Your task to perform on an android device: Go to Amazon Image 0: 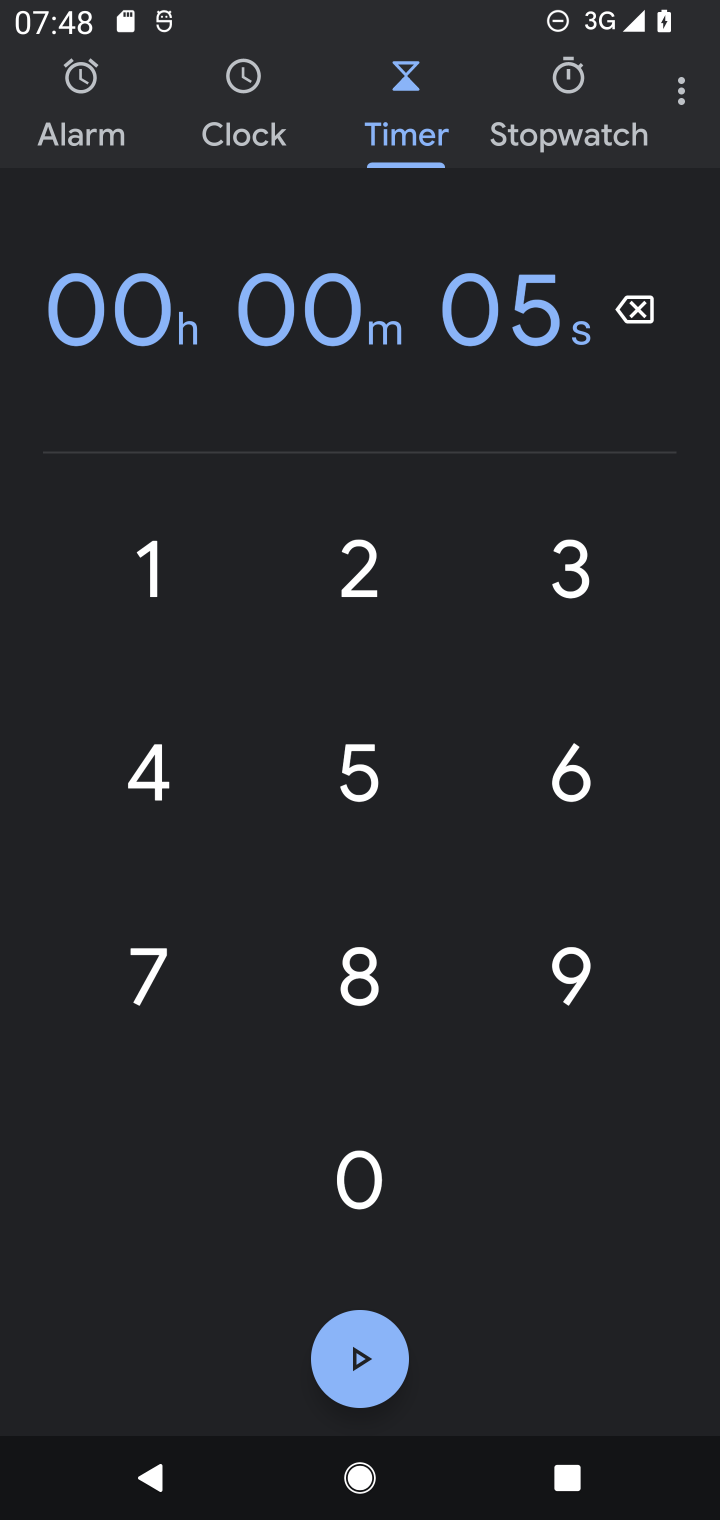
Step 0: press home button
Your task to perform on an android device: Go to Amazon Image 1: 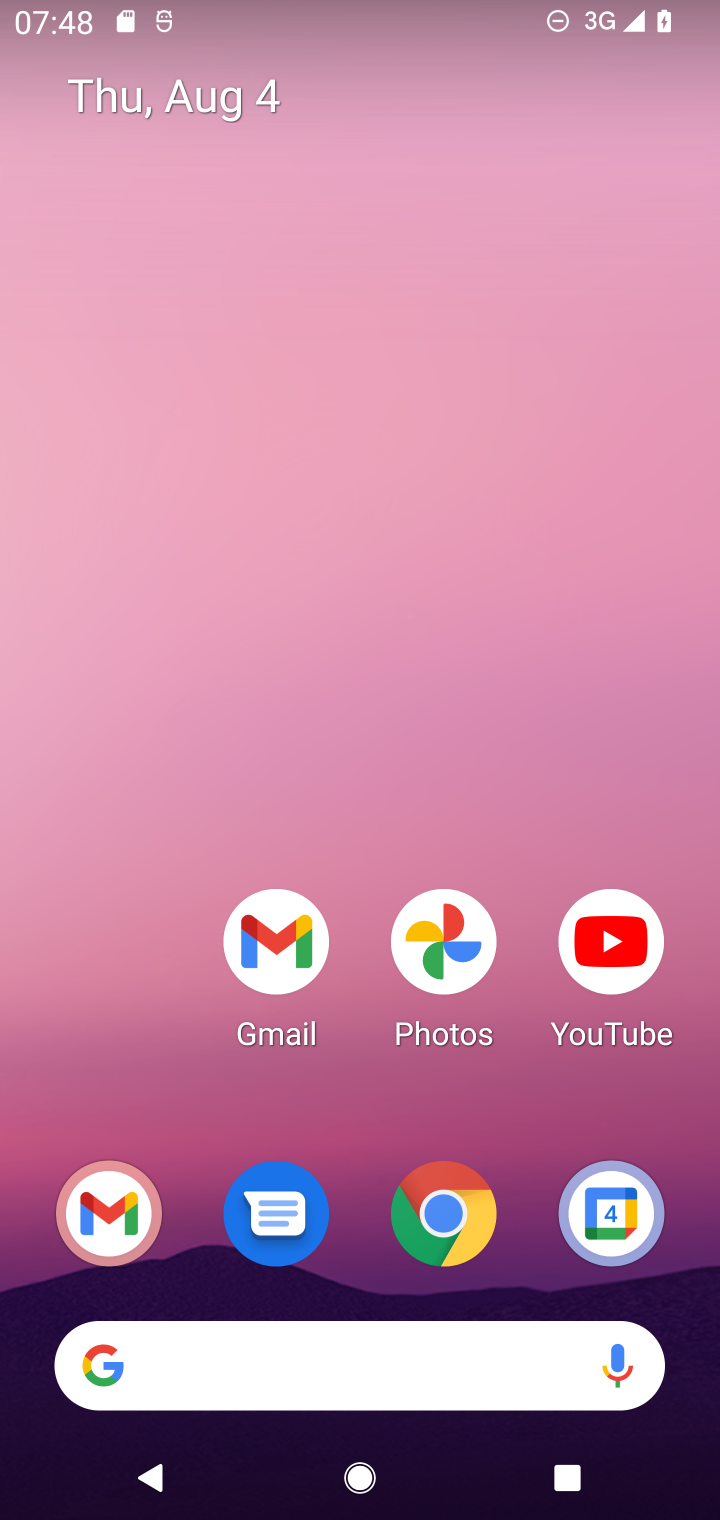
Step 1: drag from (146, 1139) to (186, 502)
Your task to perform on an android device: Go to Amazon Image 2: 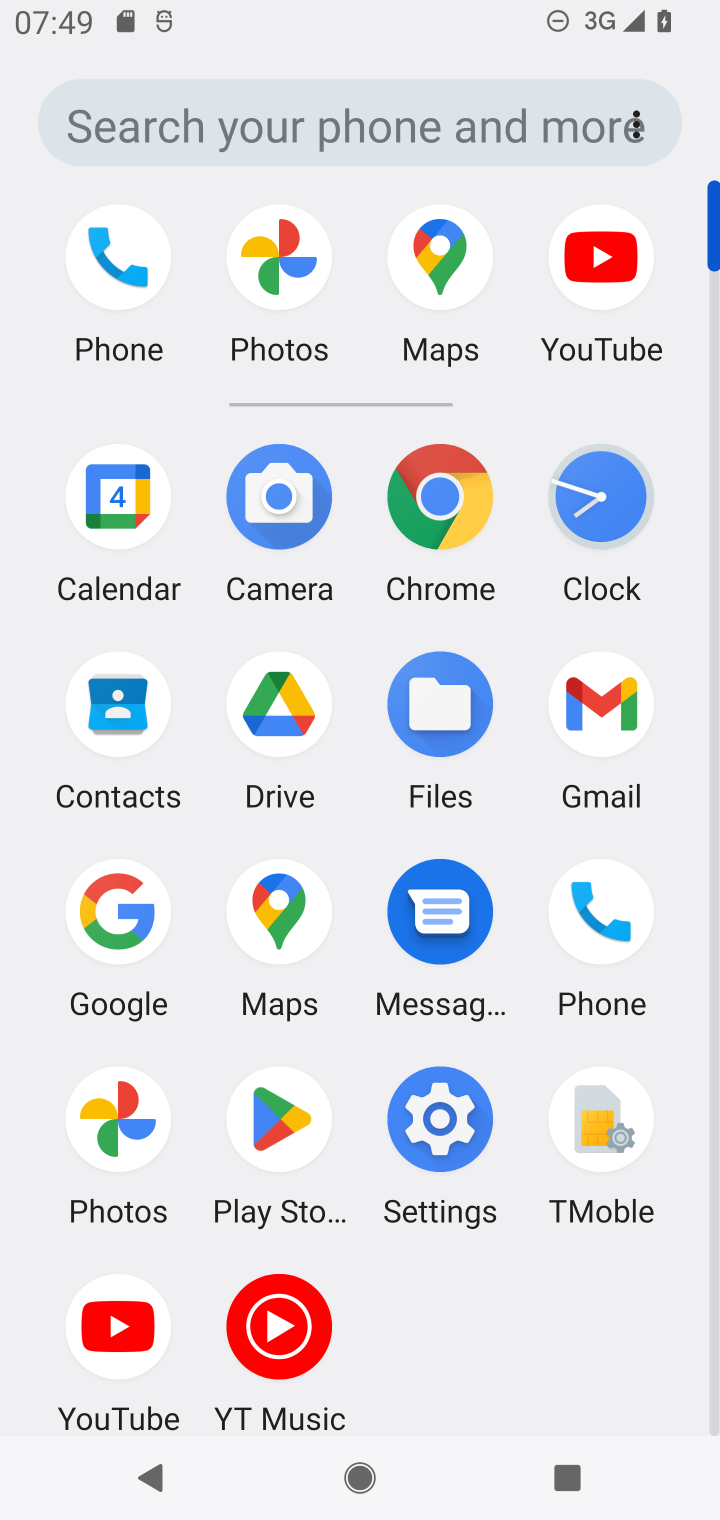
Step 2: click (451, 494)
Your task to perform on an android device: Go to Amazon Image 3: 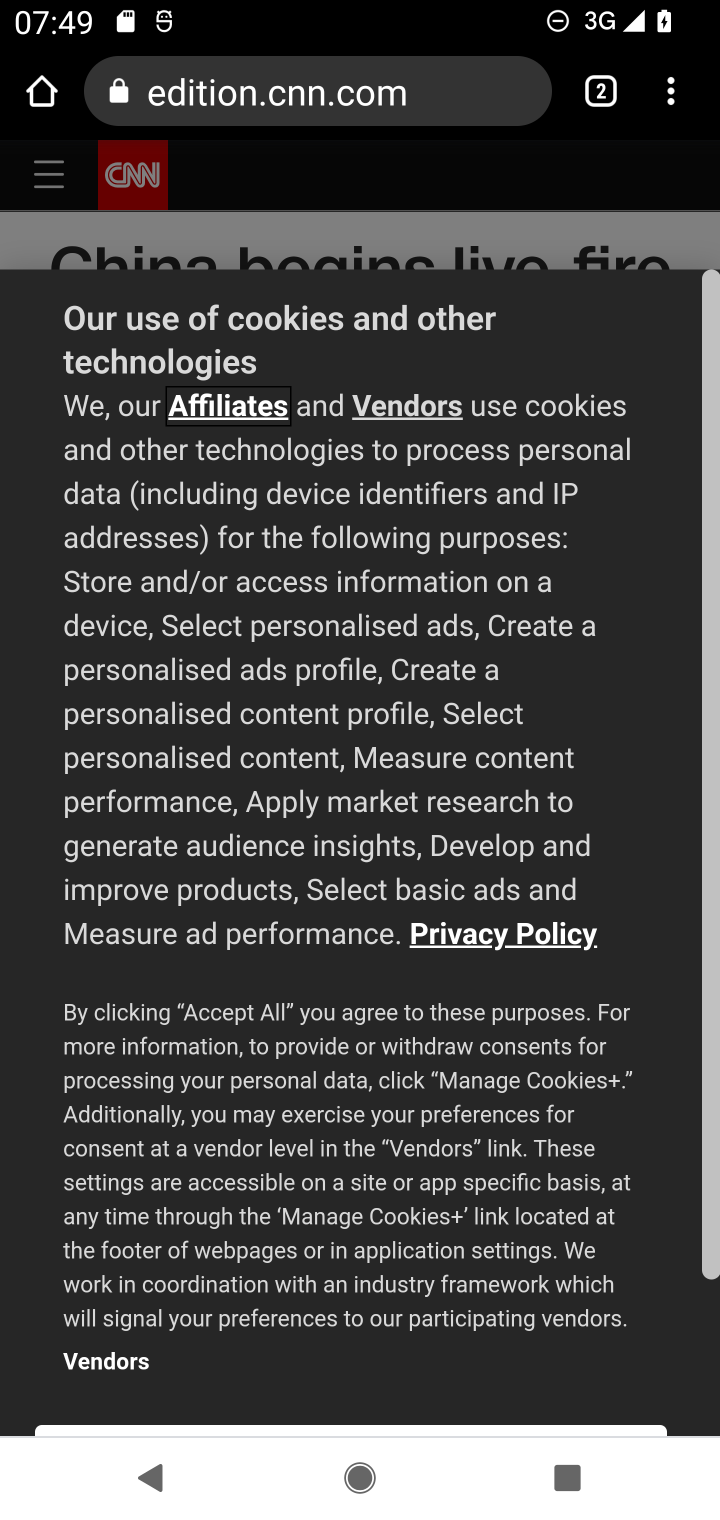
Step 3: click (433, 96)
Your task to perform on an android device: Go to Amazon Image 4: 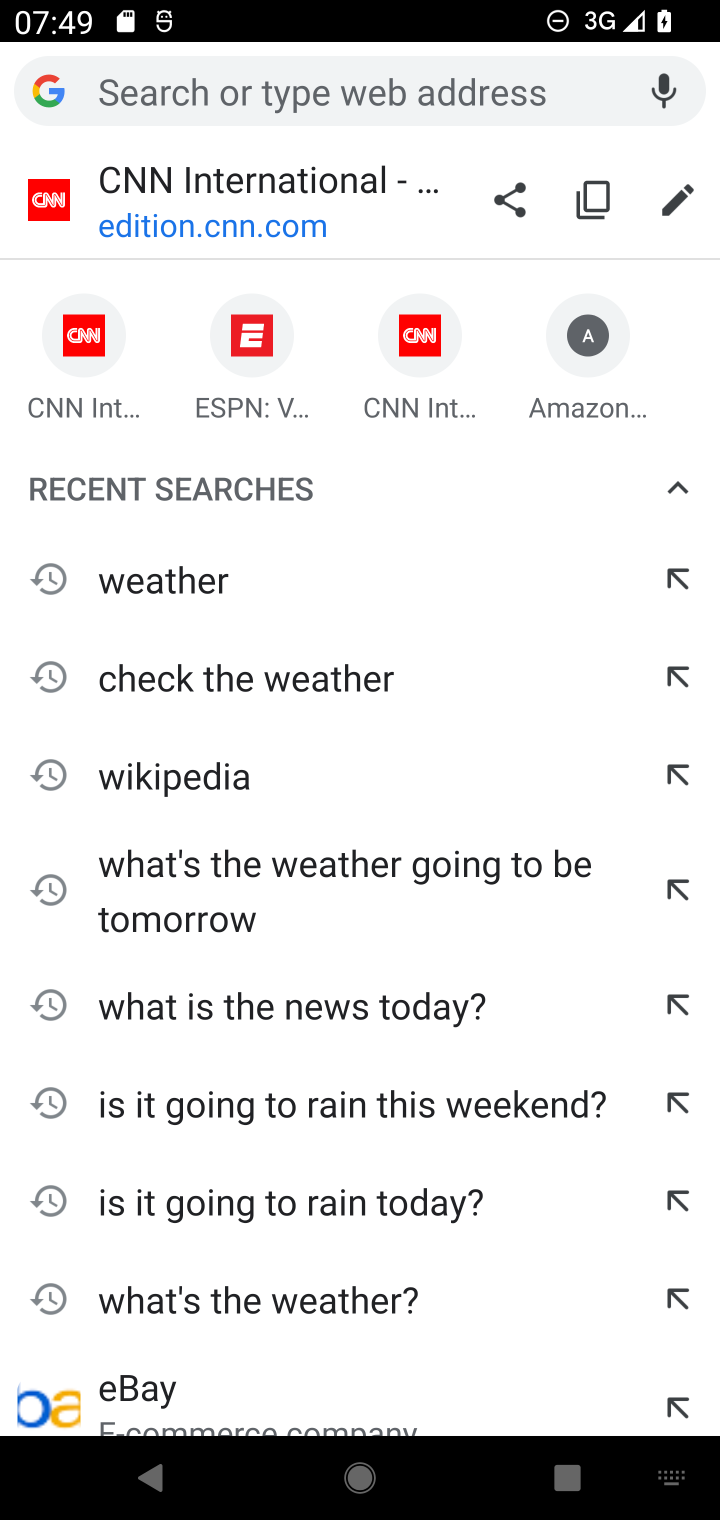
Step 4: type "amazon"
Your task to perform on an android device: Go to Amazon Image 5: 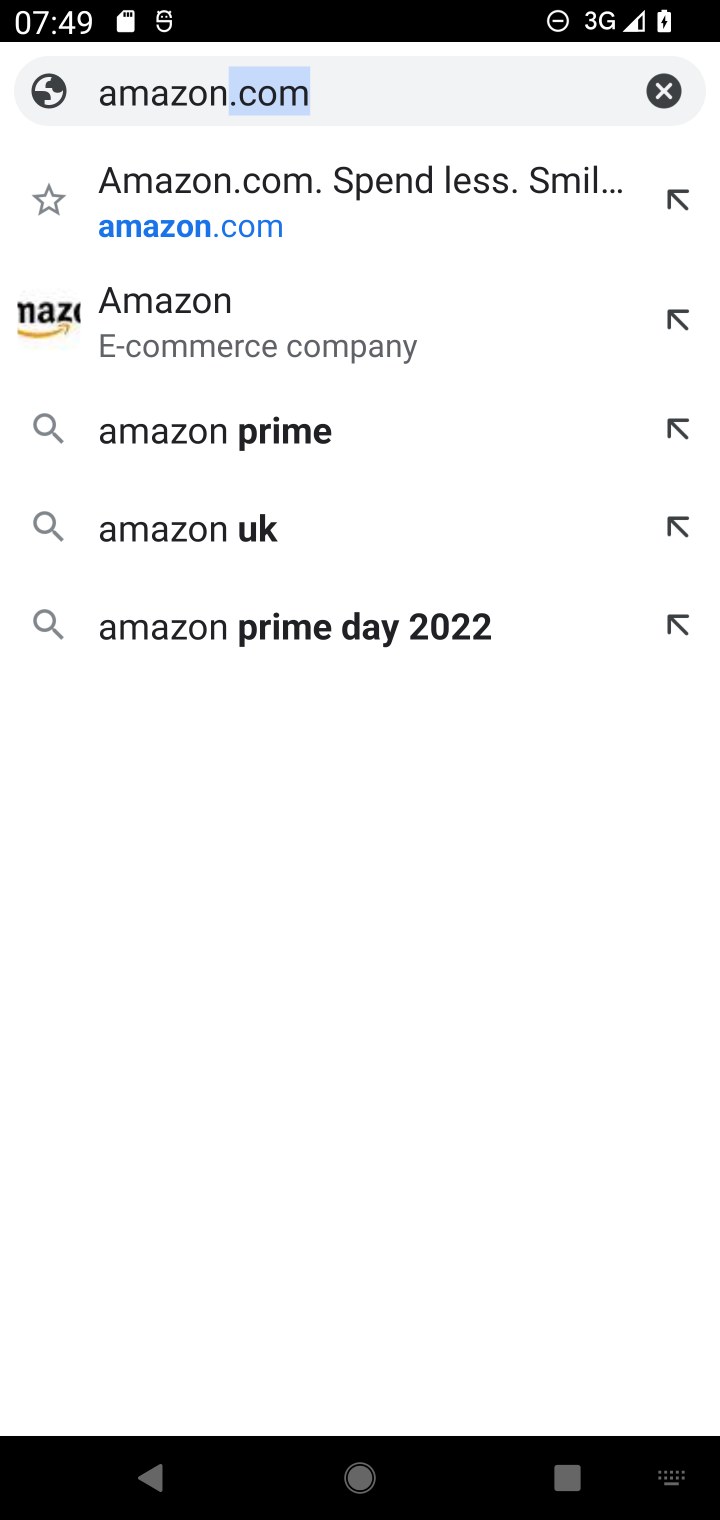
Step 5: click (361, 338)
Your task to perform on an android device: Go to Amazon Image 6: 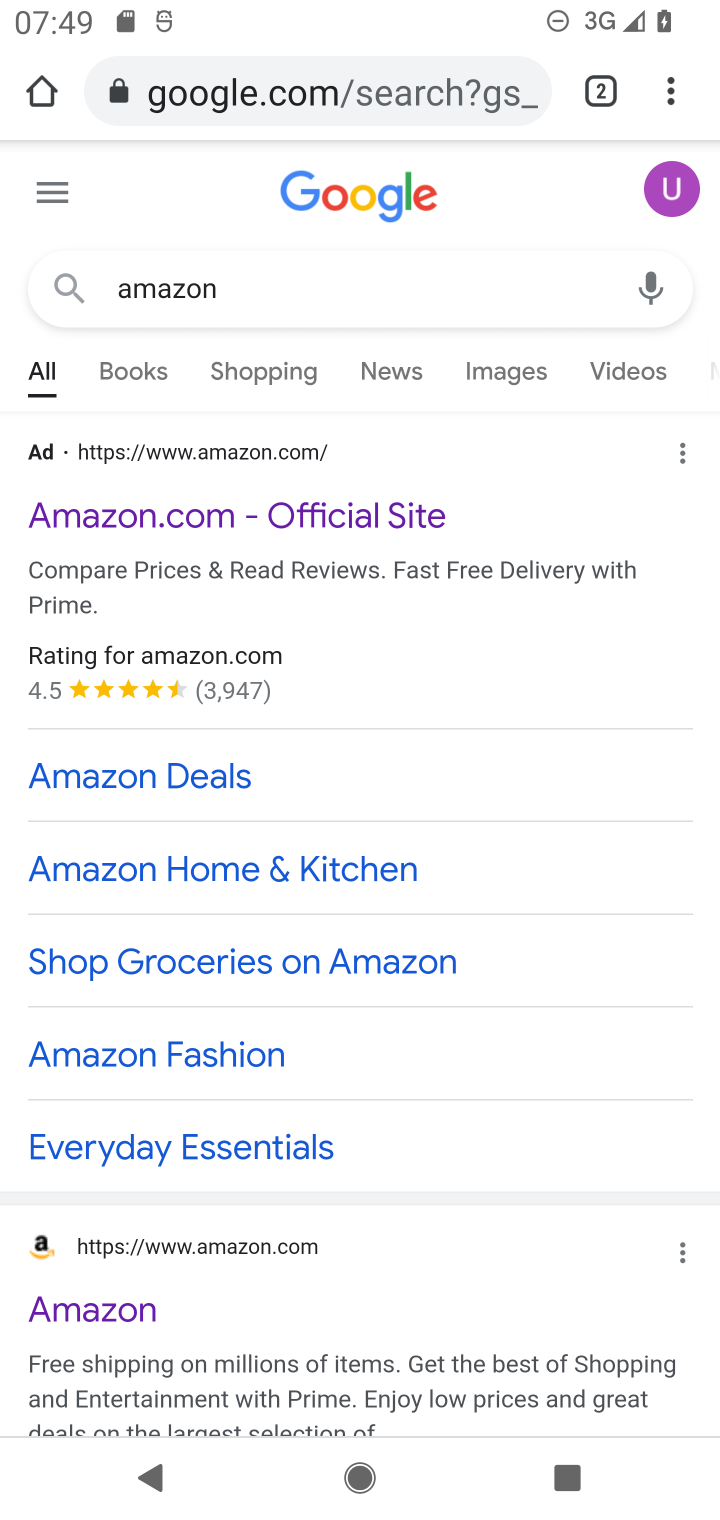
Step 6: task complete